Your task to perform on an android device: turn on the 24-hour format for clock Image 0: 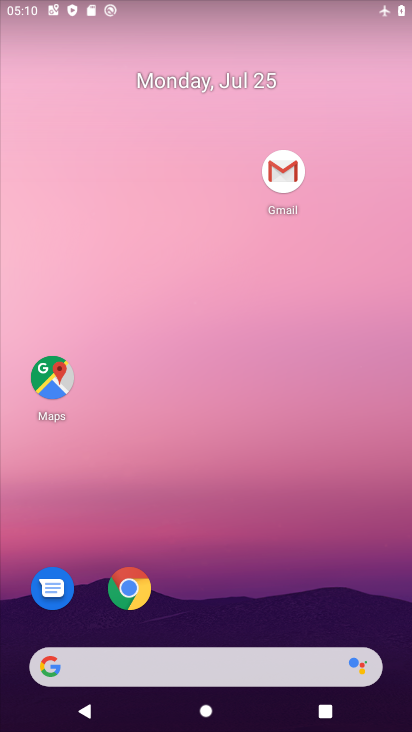
Step 0: drag from (305, 586) to (274, 121)
Your task to perform on an android device: turn on the 24-hour format for clock Image 1: 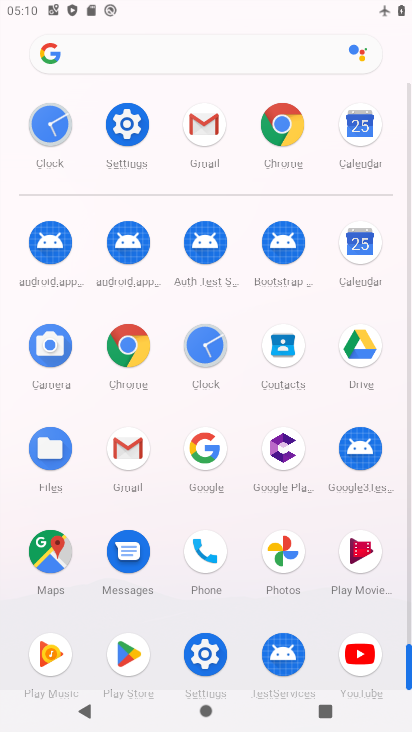
Step 1: click (215, 357)
Your task to perform on an android device: turn on the 24-hour format for clock Image 2: 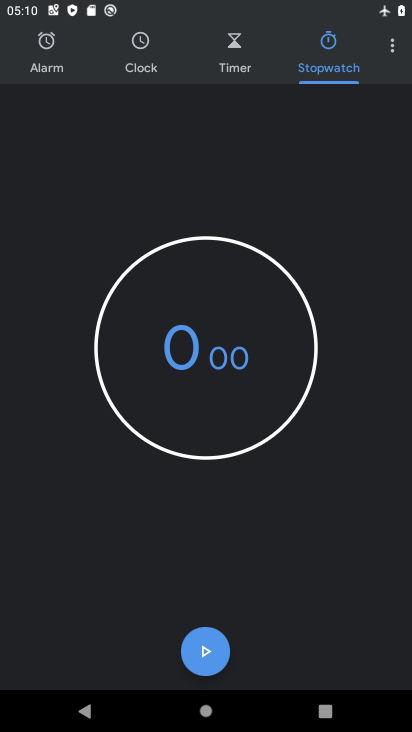
Step 2: click (397, 40)
Your task to perform on an android device: turn on the 24-hour format for clock Image 3: 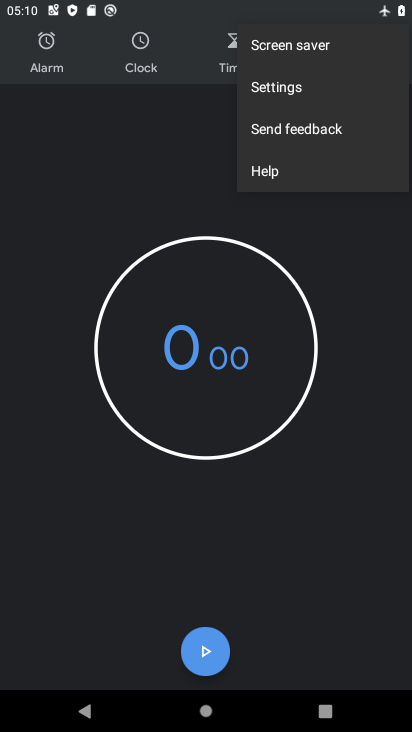
Step 3: click (293, 98)
Your task to perform on an android device: turn on the 24-hour format for clock Image 4: 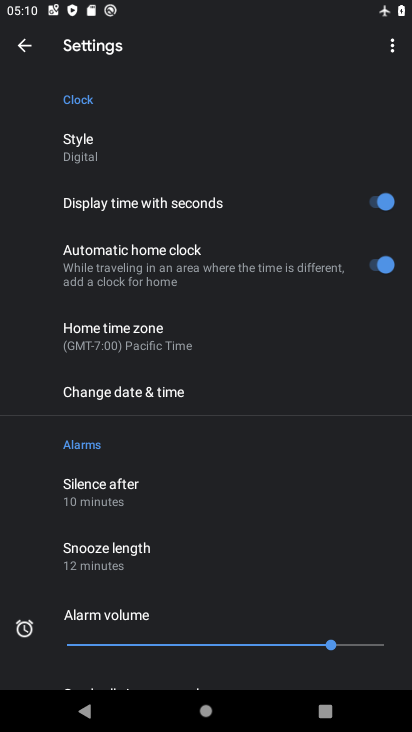
Step 4: click (155, 402)
Your task to perform on an android device: turn on the 24-hour format for clock Image 5: 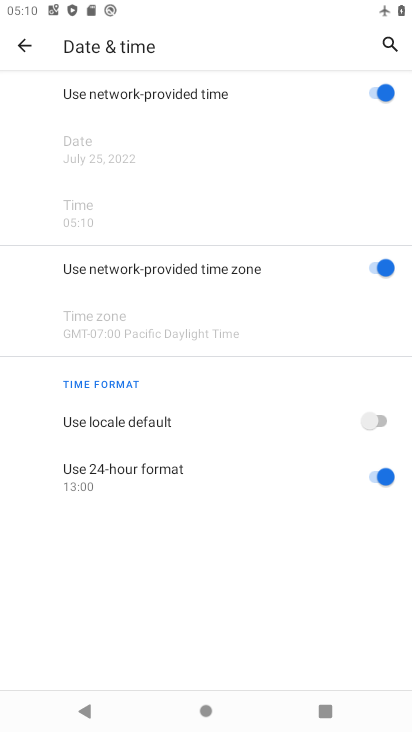
Step 5: task complete